Your task to perform on an android device: What's on my calendar tomorrow? Image 0: 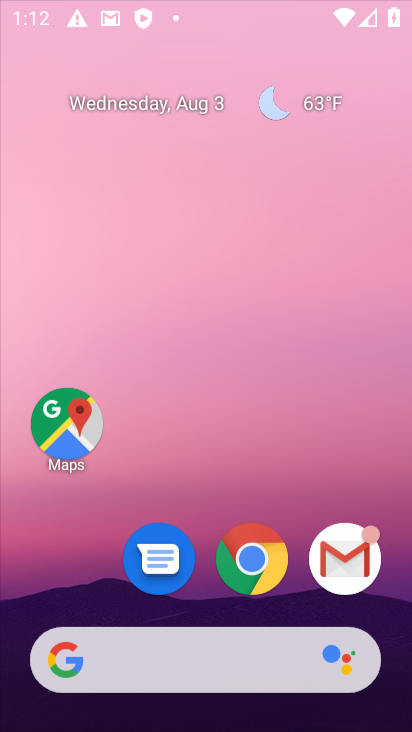
Step 0: press home button
Your task to perform on an android device: What's on my calendar tomorrow? Image 1: 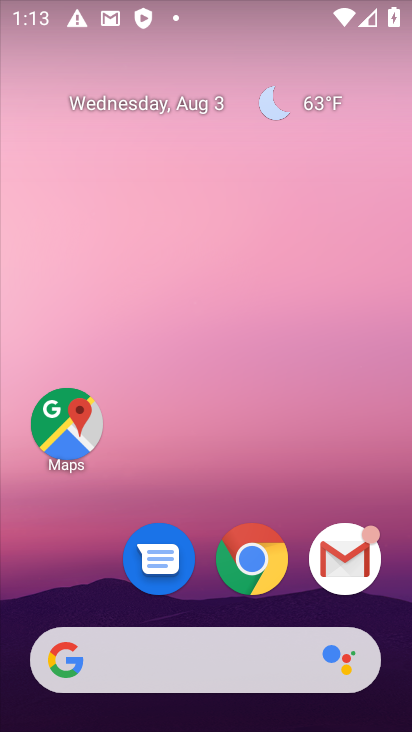
Step 1: drag from (258, 662) to (157, 150)
Your task to perform on an android device: What's on my calendar tomorrow? Image 2: 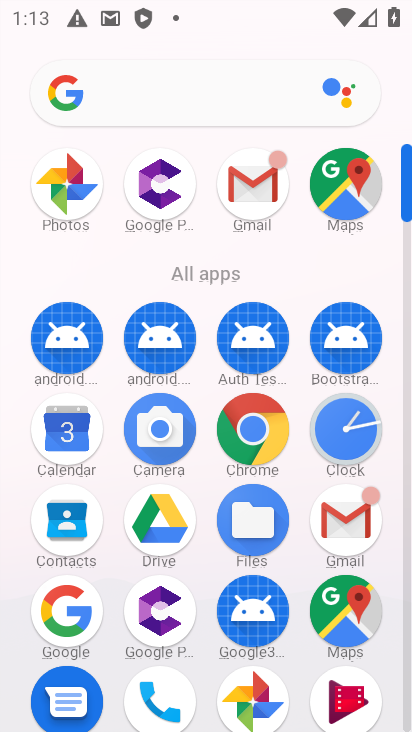
Step 2: click (71, 425)
Your task to perform on an android device: What's on my calendar tomorrow? Image 3: 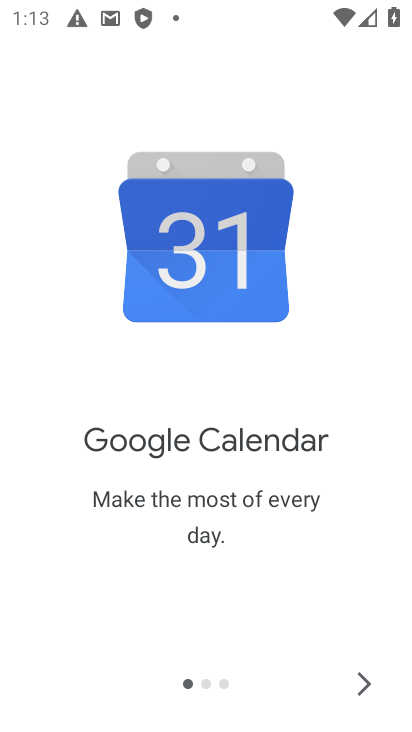
Step 3: click (362, 681)
Your task to perform on an android device: What's on my calendar tomorrow? Image 4: 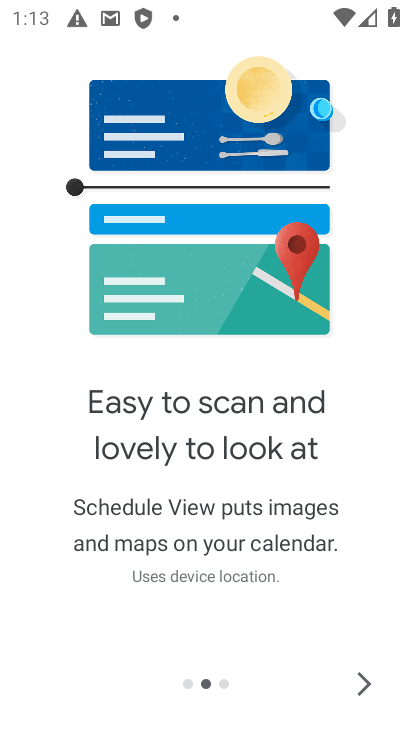
Step 4: click (366, 672)
Your task to perform on an android device: What's on my calendar tomorrow? Image 5: 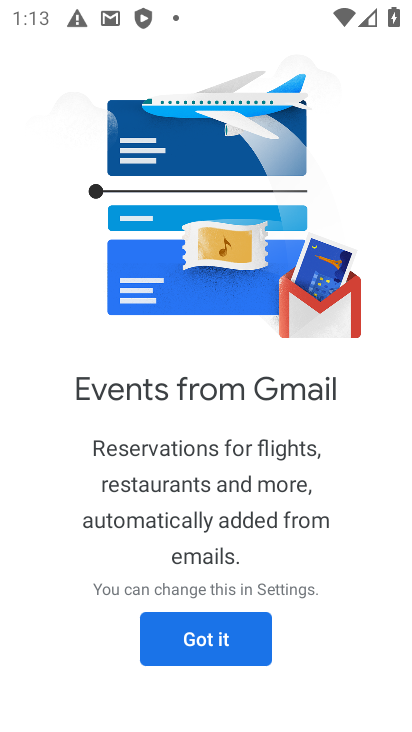
Step 5: click (161, 636)
Your task to perform on an android device: What's on my calendar tomorrow? Image 6: 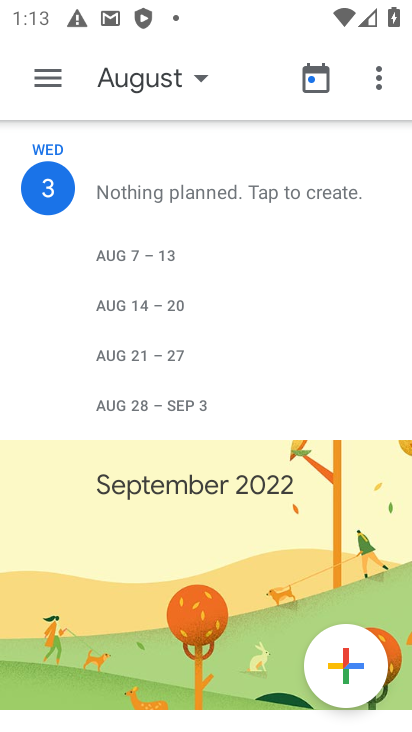
Step 6: click (58, 75)
Your task to perform on an android device: What's on my calendar tomorrow? Image 7: 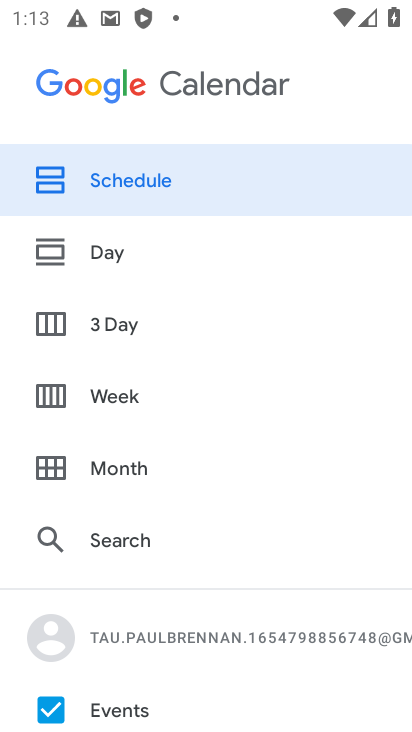
Step 7: click (142, 459)
Your task to perform on an android device: What's on my calendar tomorrow? Image 8: 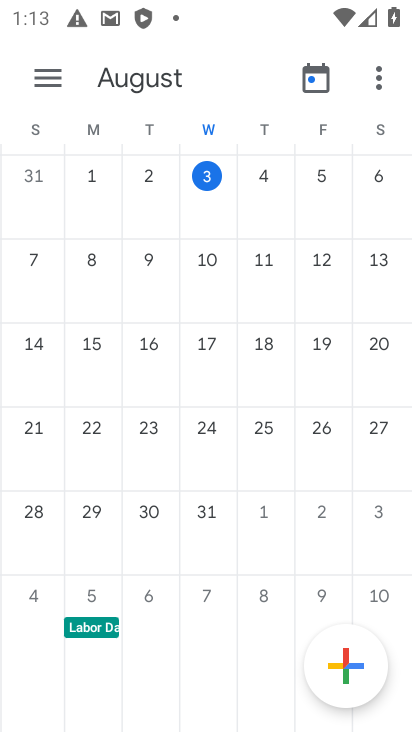
Step 8: click (275, 210)
Your task to perform on an android device: What's on my calendar tomorrow? Image 9: 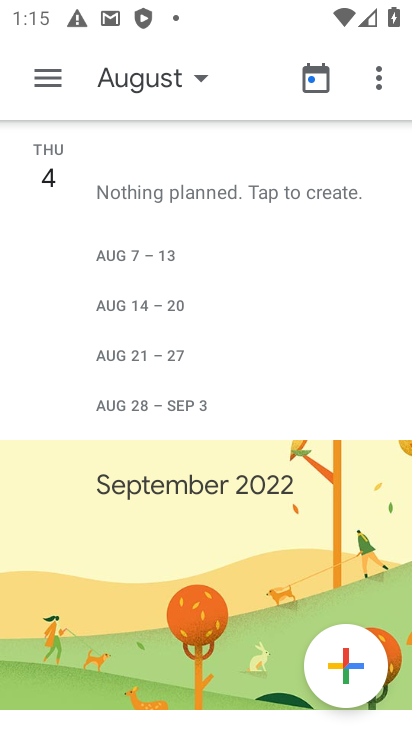
Step 9: task complete